Your task to perform on an android device: turn off notifications settings in the gmail app Image 0: 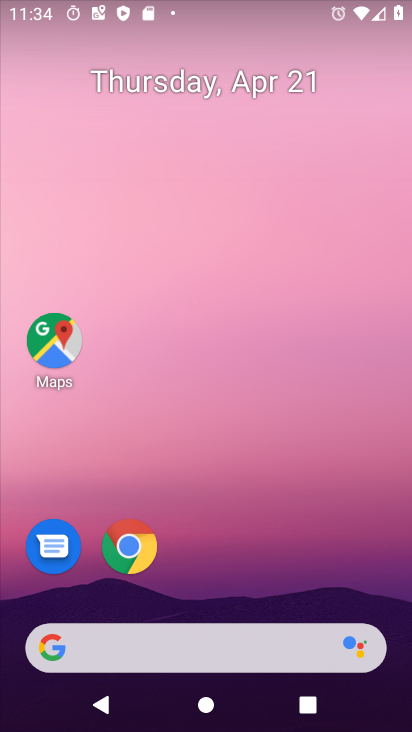
Step 0: drag from (249, 518) to (259, 155)
Your task to perform on an android device: turn off notifications settings in the gmail app Image 1: 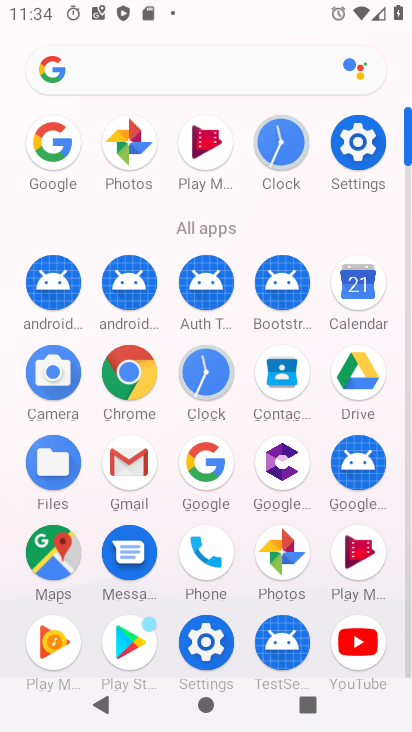
Step 1: click (126, 461)
Your task to perform on an android device: turn off notifications settings in the gmail app Image 2: 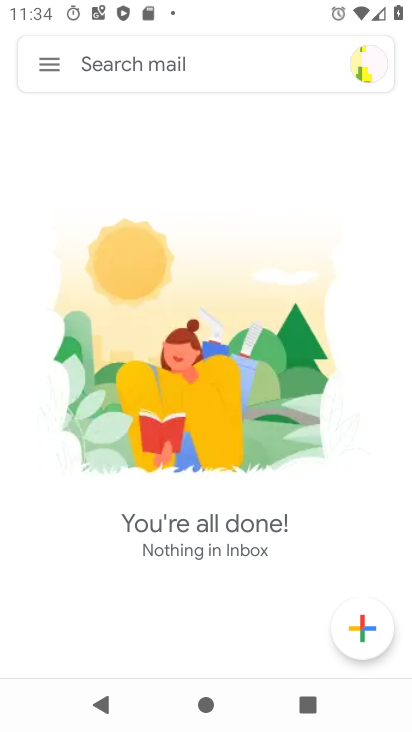
Step 2: click (49, 68)
Your task to perform on an android device: turn off notifications settings in the gmail app Image 3: 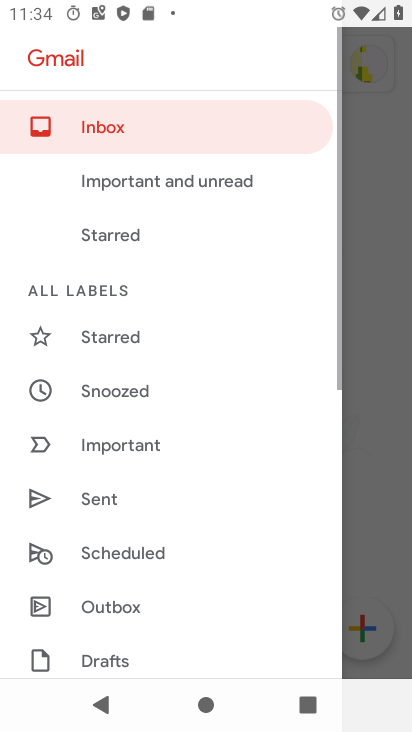
Step 3: drag from (195, 515) to (246, 133)
Your task to perform on an android device: turn off notifications settings in the gmail app Image 4: 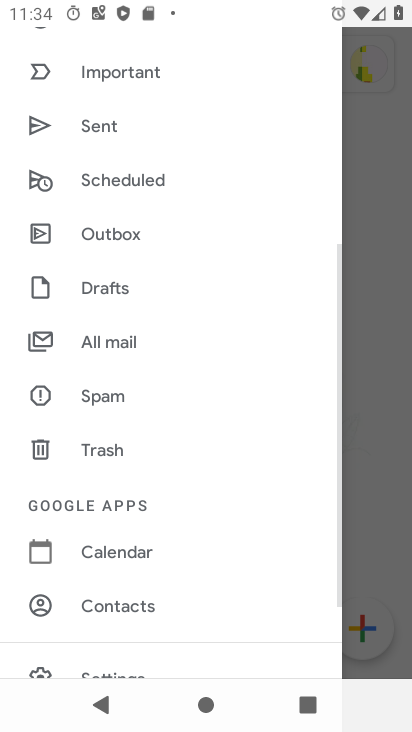
Step 4: drag from (206, 591) to (232, 212)
Your task to perform on an android device: turn off notifications settings in the gmail app Image 5: 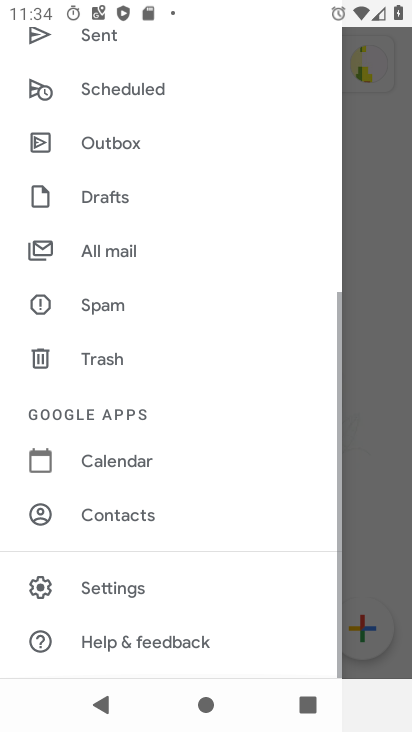
Step 5: click (122, 578)
Your task to perform on an android device: turn off notifications settings in the gmail app Image 6: 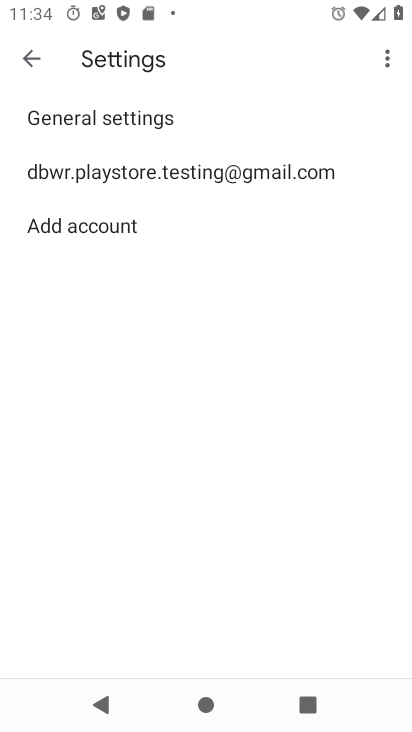
Step 6: click (148, 177)
Your task to perform on an android device: turn off notifications settings in the gmail app Image 7: 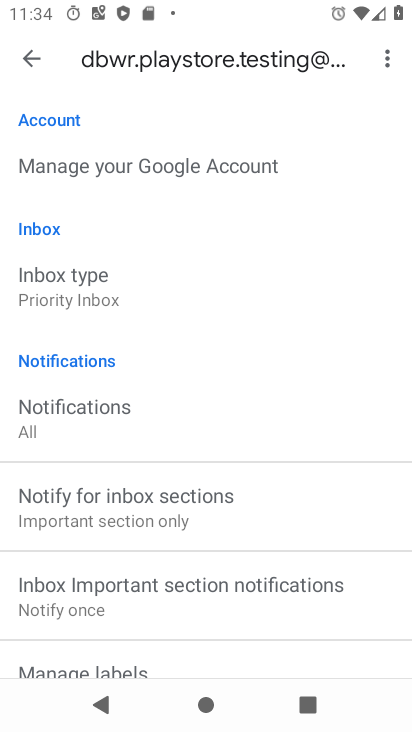
Step 7: click (97, 425)
Your task to perform on an android device: turn off notifications settings in the gmail app Image 8: 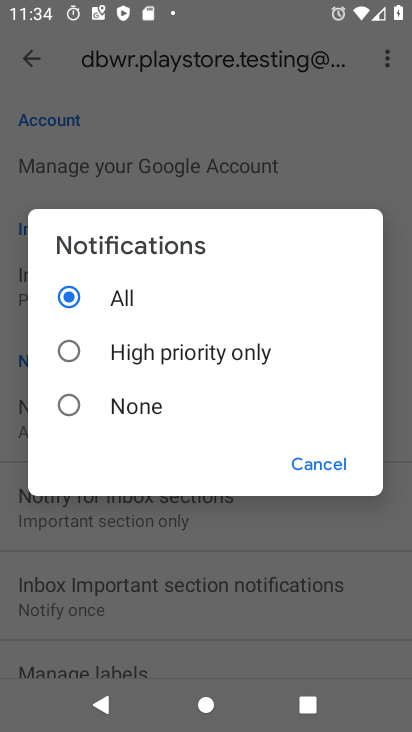
Step 8: click (63, 407)
Your task to perform on an android device: turn off notifications settings in the gmail app Image 9: 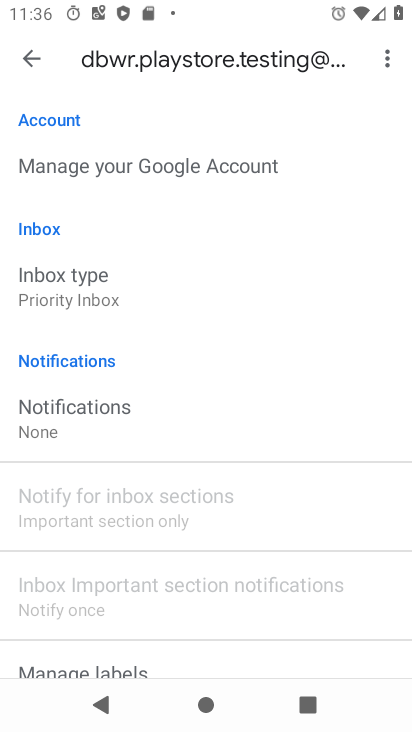
Step 9: task complete